Your task to perform on an android device: Go to Wikipedia Image 0: 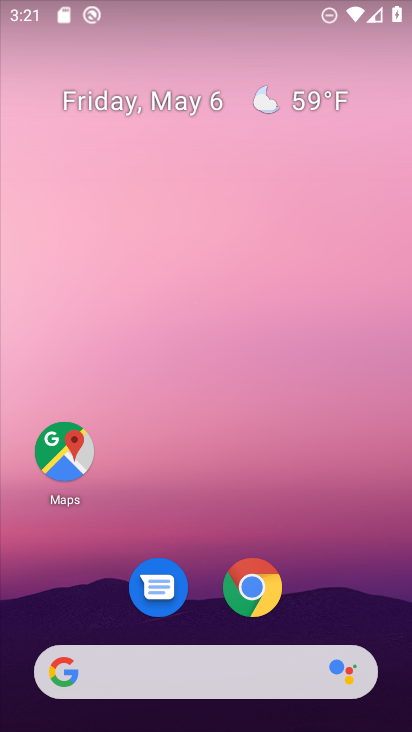
Step 0: click (291, 589)
Your task to perform on an android device: Go to Wikipedia Image 1: 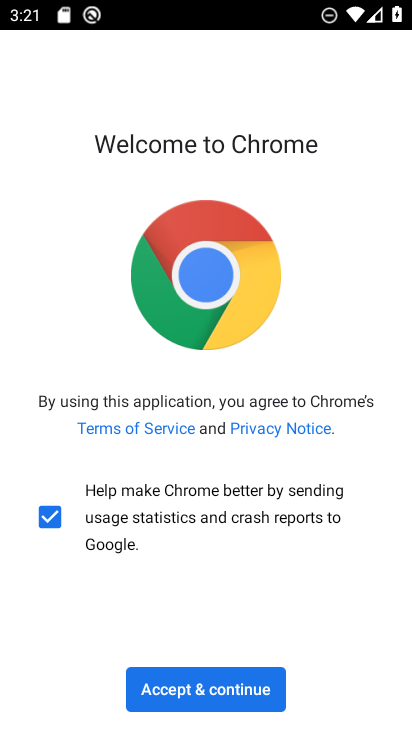
Step 1: click (184, 686)
Your task to perform on an android device: Go to Wikipedia Image 2: 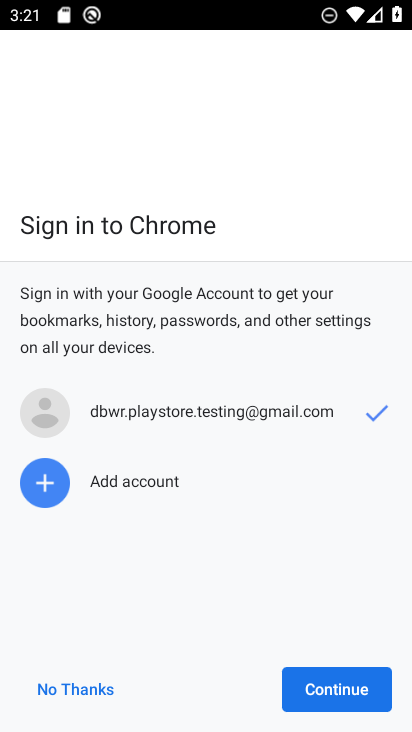
Step 2: click (60, 697)
Your task to perform on an android device: Go to Wikipedia Image 3: 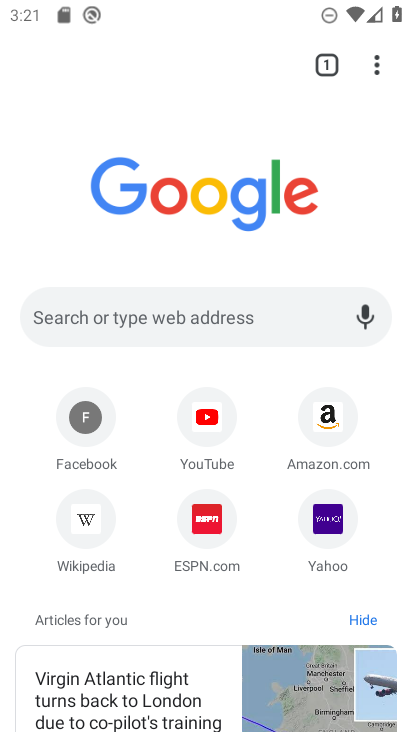
Step 3: click (85, 535)
Your task to perform on an android device: Go to Wikipedia Image 4: 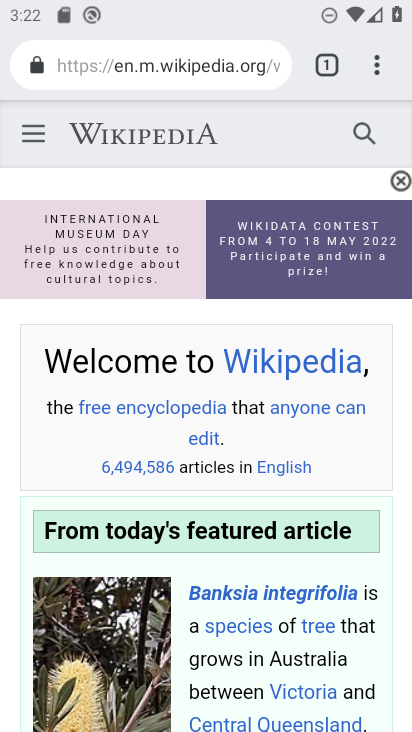
Step 4: task complete